Your task to perform on an android device: see creations saved in the google photos Image 0: 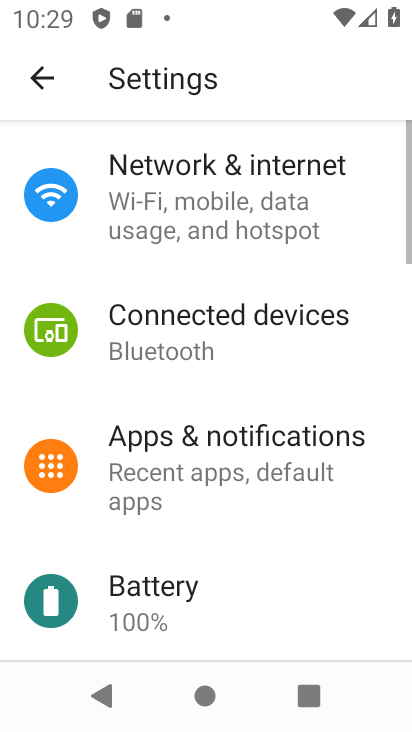
Step 0: press home button
Your task to perform on an android device: see creations saved in the google photos Image 1: 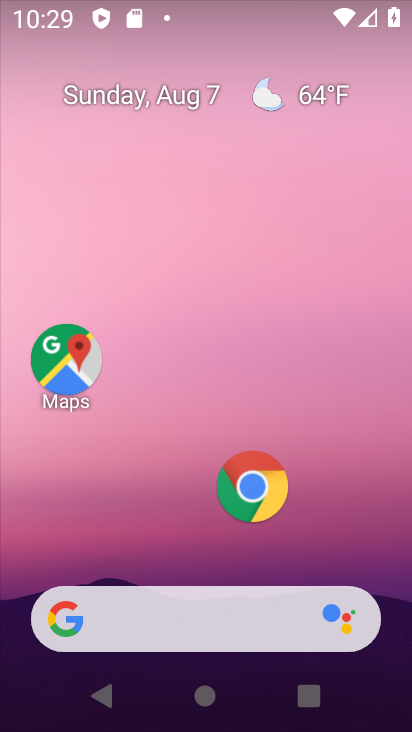
Step 1: drag from (176, 665) to (200, 85)
Your task to perform on an android device: see creations saved in the google photos Image 2: 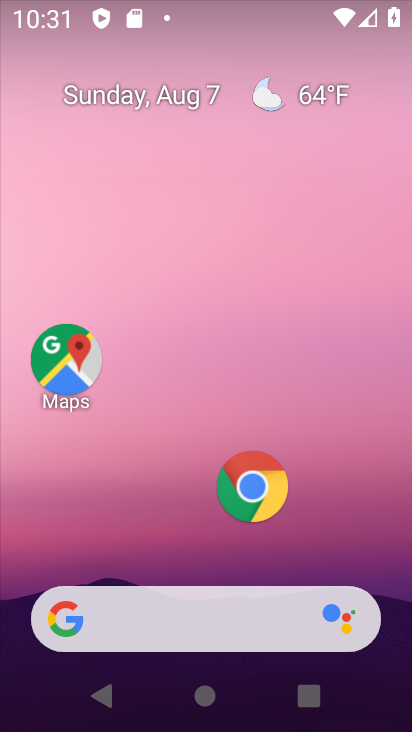
Step 2: drag from (254, 671) to (227, 228)
Your task to perform on an android device: see creations saved in the google photos Image 3: 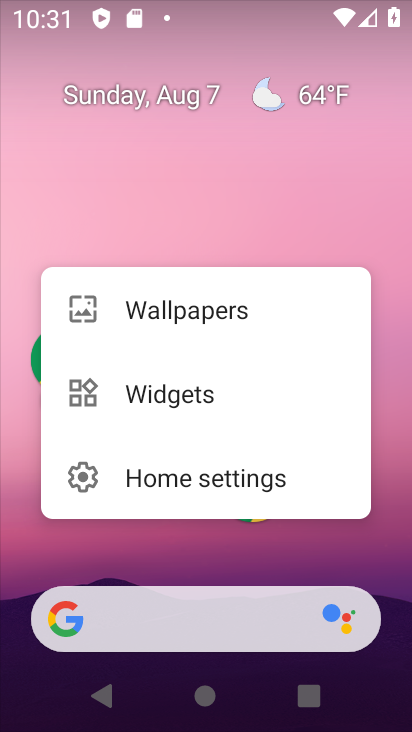
Step 3: drag from (171, 685) to (191, 181)
Your task to perform on an android device: see creations saved in the google photos Image 4: 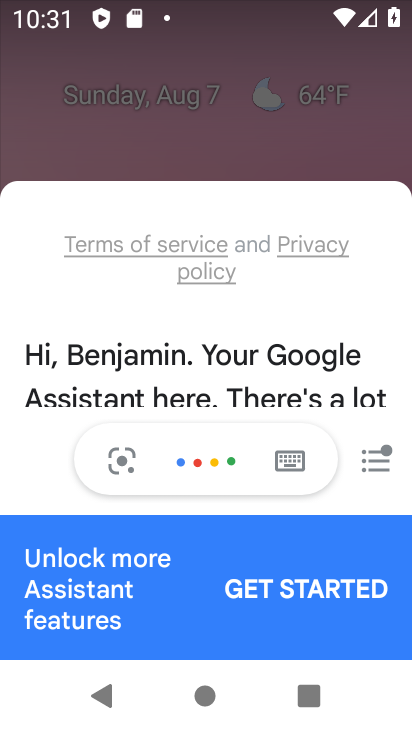
Step 4: press home button
Your task to perform on an android device: see creations saved in the google photos Image 5: 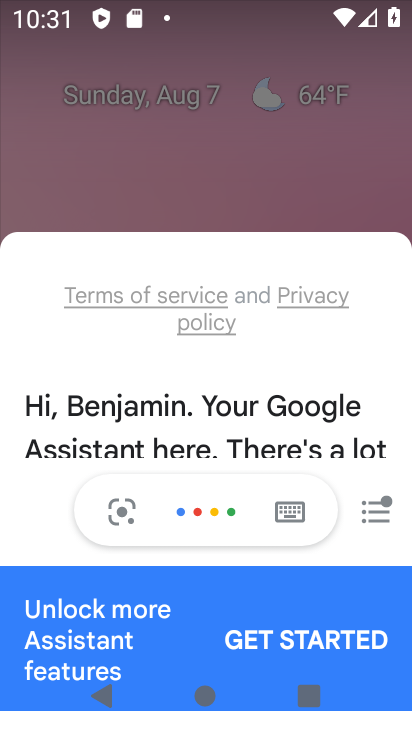
Step 5: press home button
Your task to perform on an android device: see creations saved in the google photos Image 6: 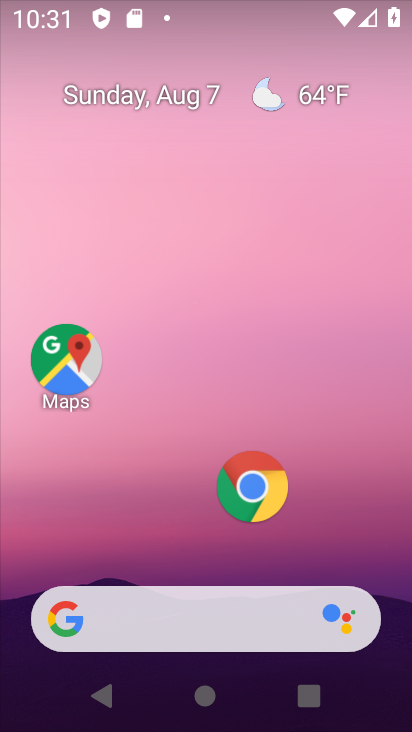
Step 6: drag from (147, 701) to (204, 150)
Your task to perform on an android device: see creations saved in the google photos Image 7: 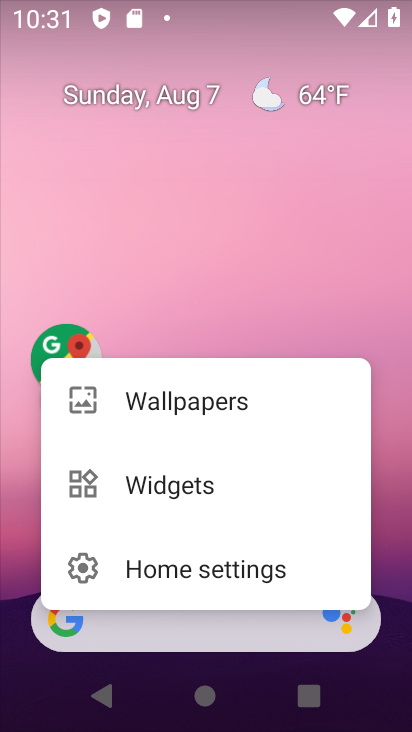
Step 7: click (259, 684)
Your task to perform on an android device: see creations saved in the google photos Image 8: 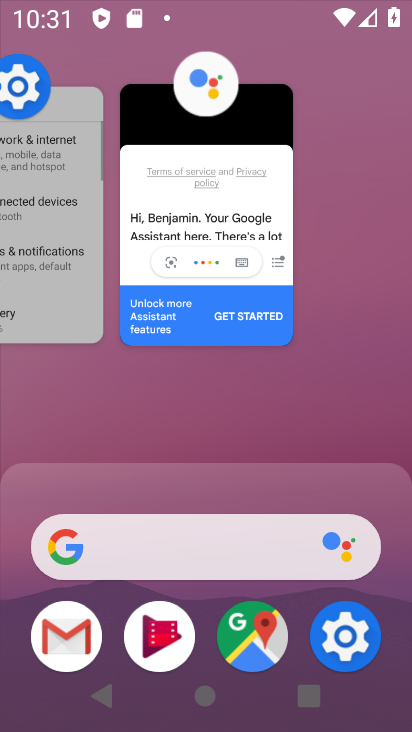
Step 8: press home button
Your task to perform on an android device: see creations saved in the google photos Image 9: 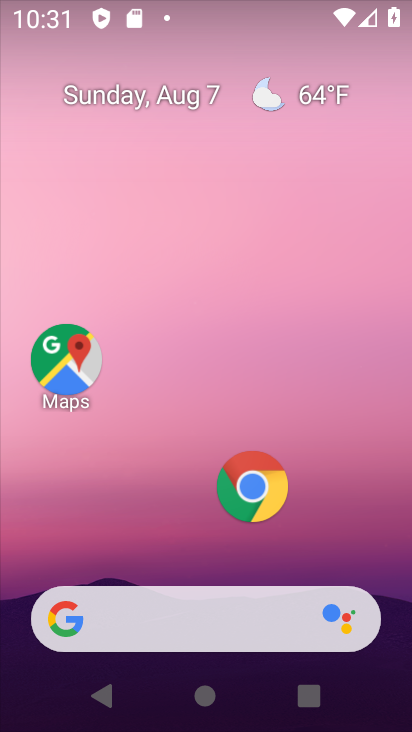
Step 9: drag from (159, 684) to (157, 96)
Your task to perform on an android device: see creations saved in the google photos Image 10: 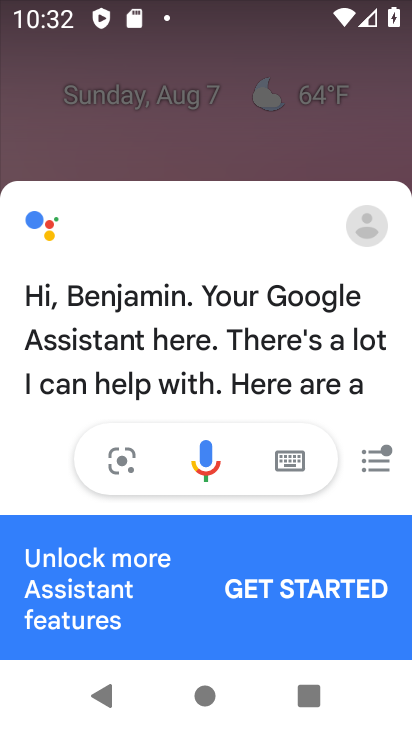
Step 10: press home button
Your task to perform on an android device: see creations saved in the google photos Image 11: 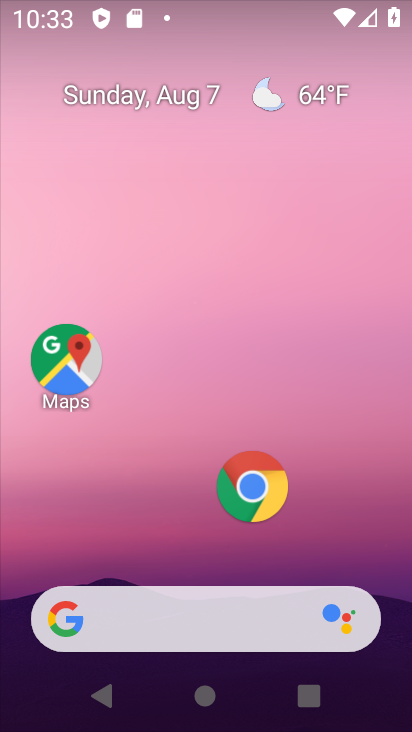
Step 11: drag from (171, 697) to (168, 289)
Your task to perform on an android device: see creations saved in the google photos Image 12: 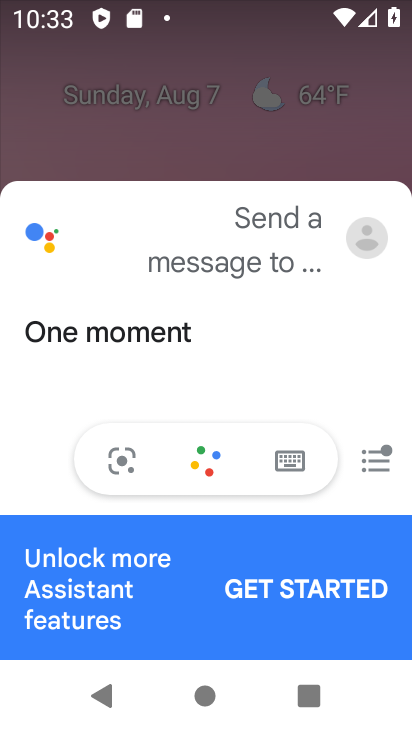
Step 12: press home button
Your task to perform on an android device: see creations saved in the google photos Image 13: 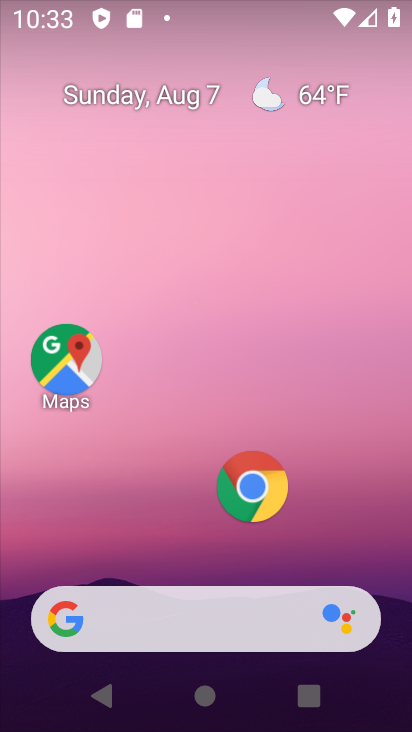
Step 13: drag from (163, 679) to (200, 88)
Your task to perform on an android device: see creations saved in the google photos Image 14: 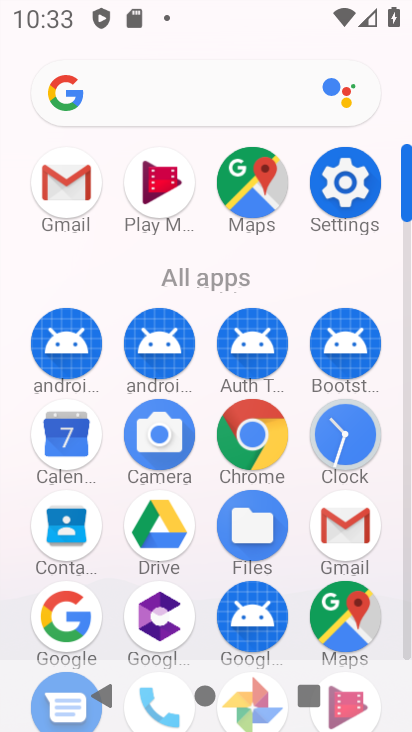
Step 14: drag from (218, 614) to (229, 135)
Your task to perform on an android device: see creations saved in the google photos Image 15: 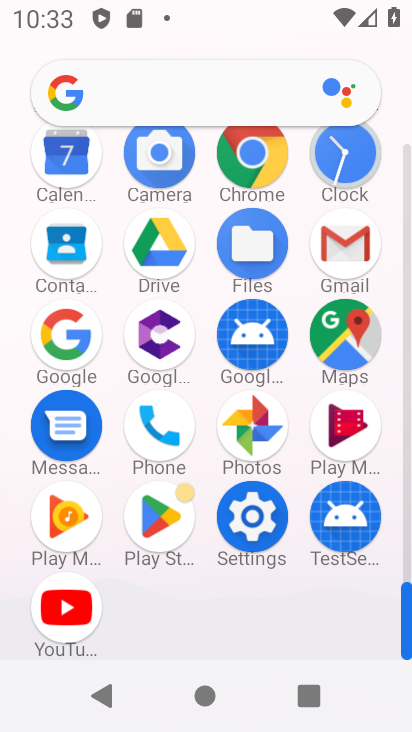
Step 15: click (269, 436)
Your task to perform on an android device: see creations saved in the google photos Image 16: 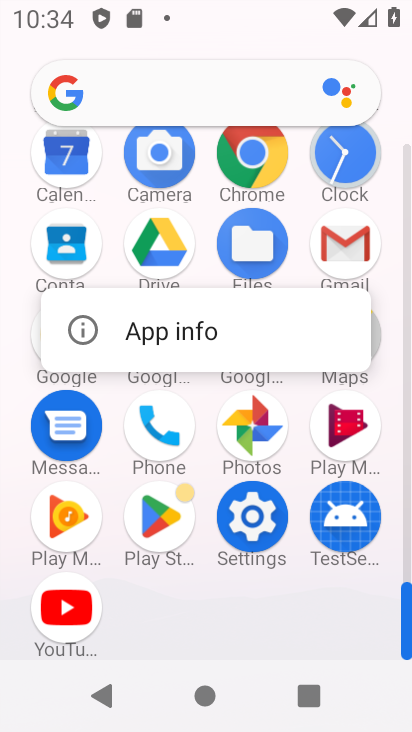
Step 16: click (246, 424)
Your task to perform on an android device: see creations saved in the google photos Image 17: 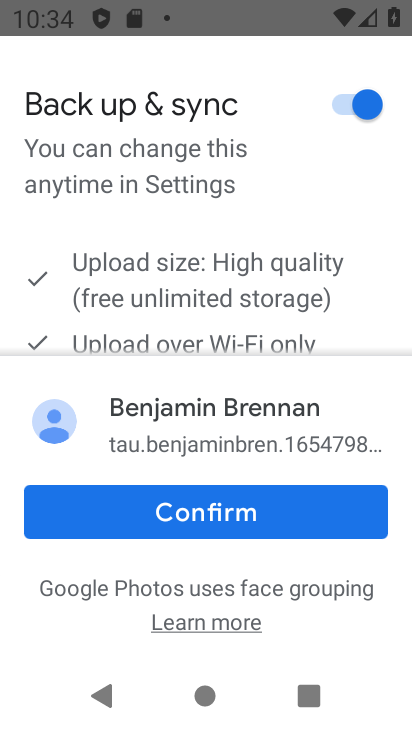
Step 17: click (253, 86)
Your task to perform on an android device: see creations saved in the google photos Image 18: 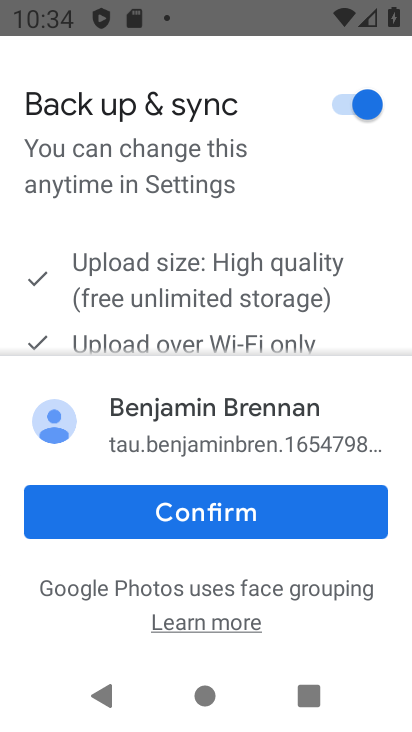
Step 18: click (257, 525)
Your task to perform on an android device: see creations saved in the google photos Image 19: 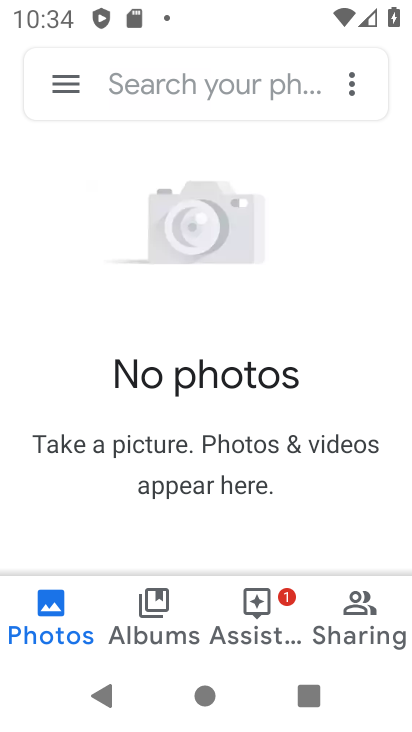
Step 19: click (210, 79)
Your task to perform on an android device: see creations saved in the google photos Image 20: 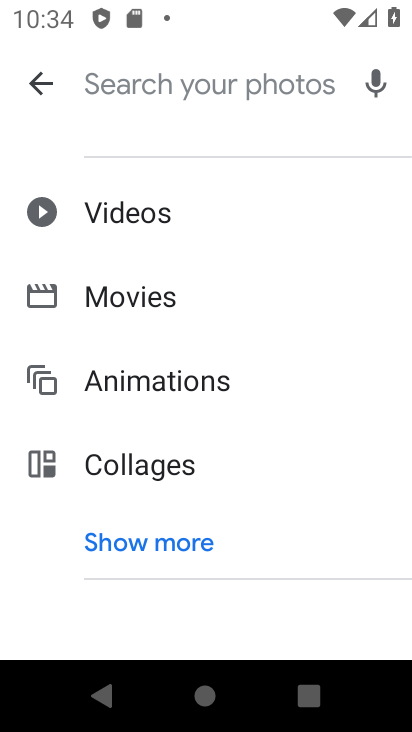
Step 20: click (152, 551)
Your task to perform on an android device: see creations saved in the google photos Image 21: 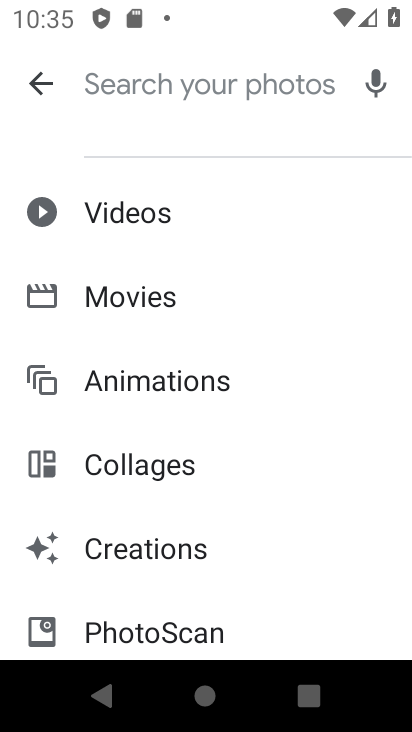
Step 21: click (180, 541)
Your task to perform on an android device: see creations saved in the google photos Image 22: 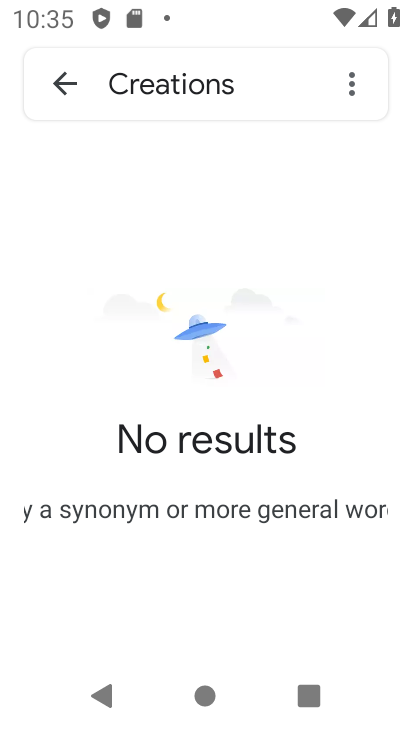
Step 22: task complete